Your task to perform on an android device: change alarm snooze length Image 0: 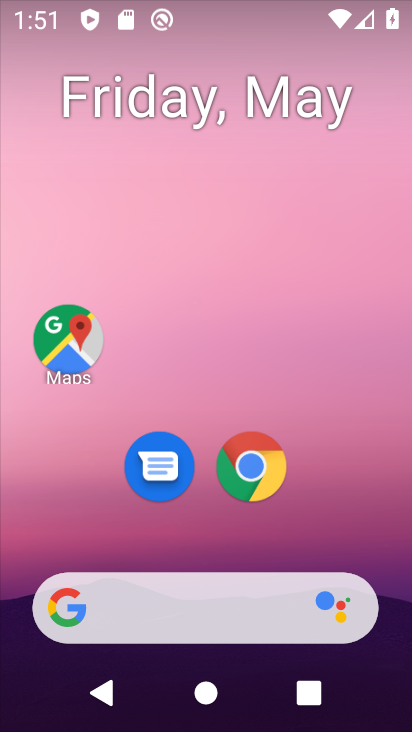
Step 0: drag from (308, 536) to (388, 32)
Your task to perform on an android device: change alarm snooze length Image 1: 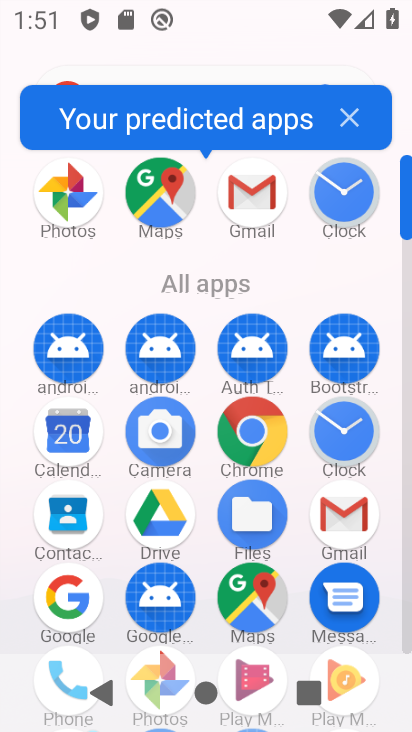
Step 1: click (345, 184)
Your task to perform on an android device: change alarm snooze length Image 2: 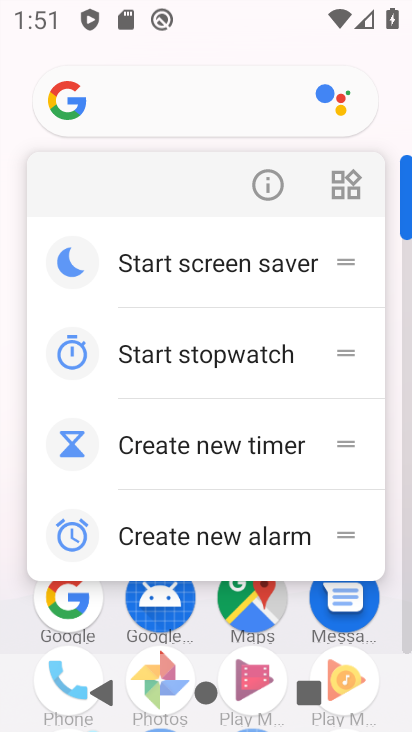
Step 2: click (391, 127)
Your task to perform on an android device: change alarm snooze length Image 3: 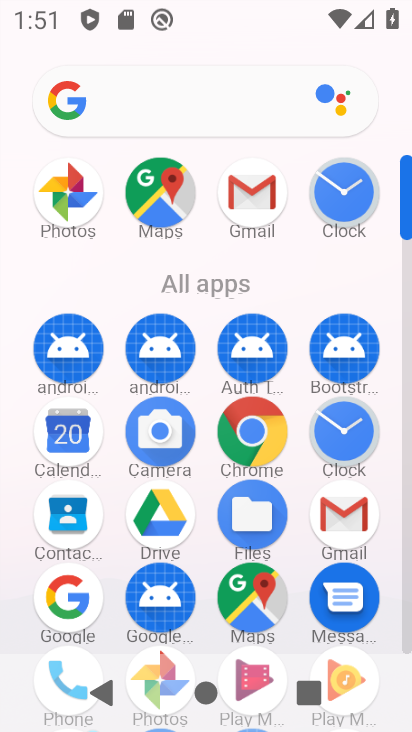
Step 3: click (351, 212)
Your task to perform on an android device: change alarm snooze length Image 4: 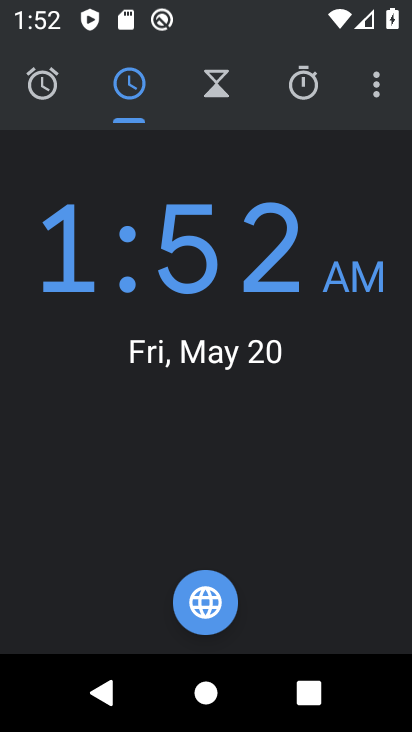
Step 4: drag from (369, 82) to (351, 145)
Your task to perform on an android device: change alarm snooze length Image 5: 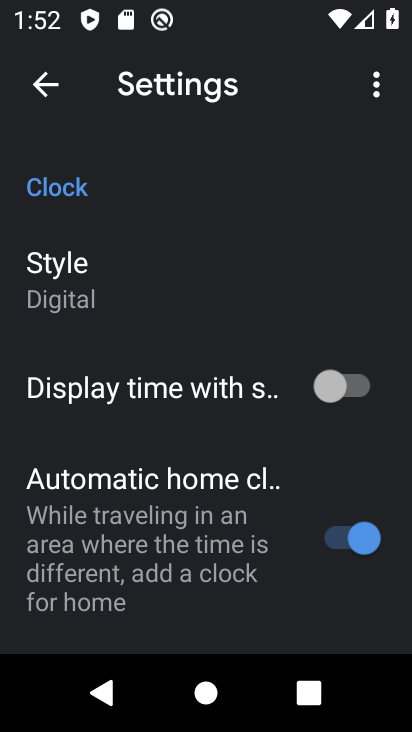
Step 5: drag from (209, 518) to (275, 127)
Your task to perform on an android device: change alarm snooze length Image 6: 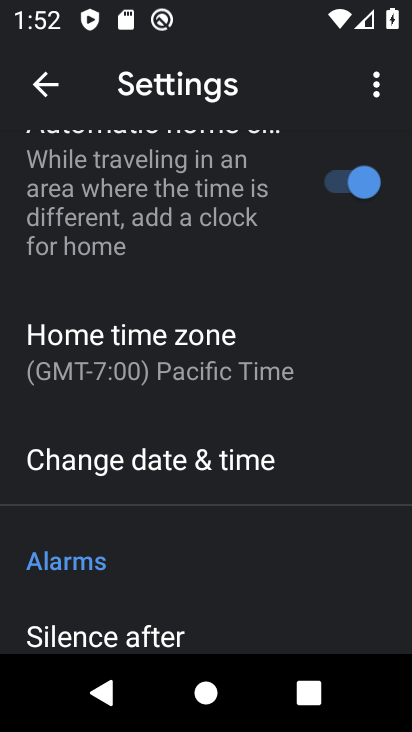
Step 6: drag from (241, 527) to (262, 231)
Your task to perform on an android device: change alarm snooze length Image 7: 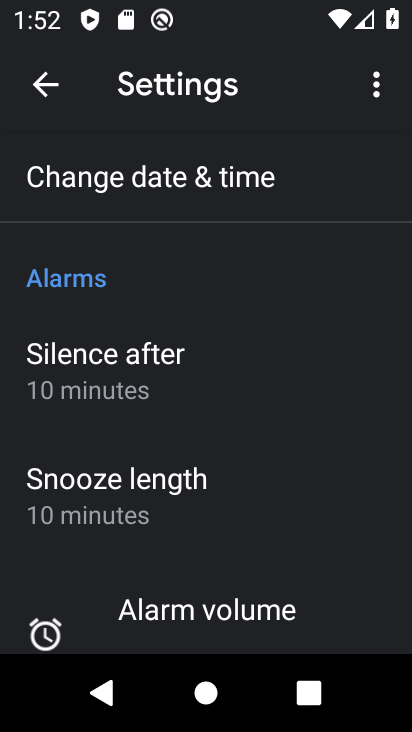
Step 7: click (142, 499)
Your task to perform on an android device: change alarm snooze length Image 8: 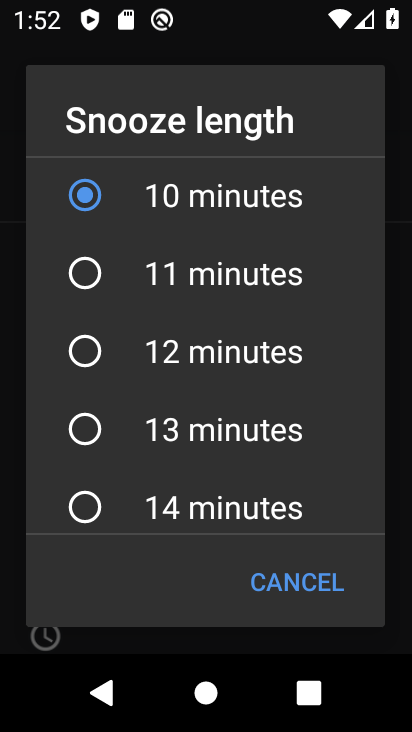
Step 8: click (209, 287)
Your task to perform on an android device: change alarm snooze length Image 9: 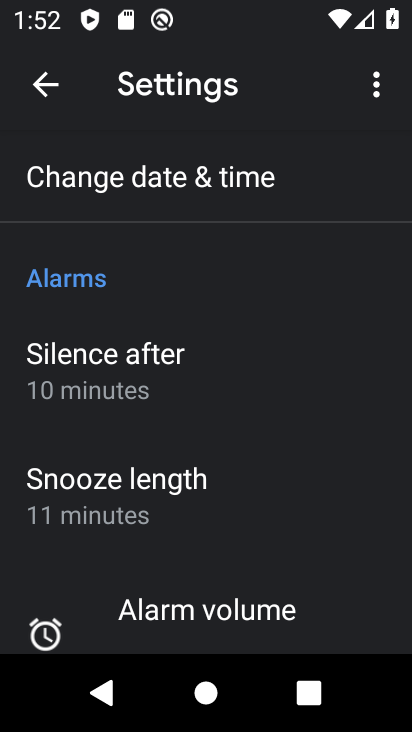
Step 9: task complete